Your task to perform on an android device: Add "dell xps" to the cart on newegg, then select checkout. Image 0: 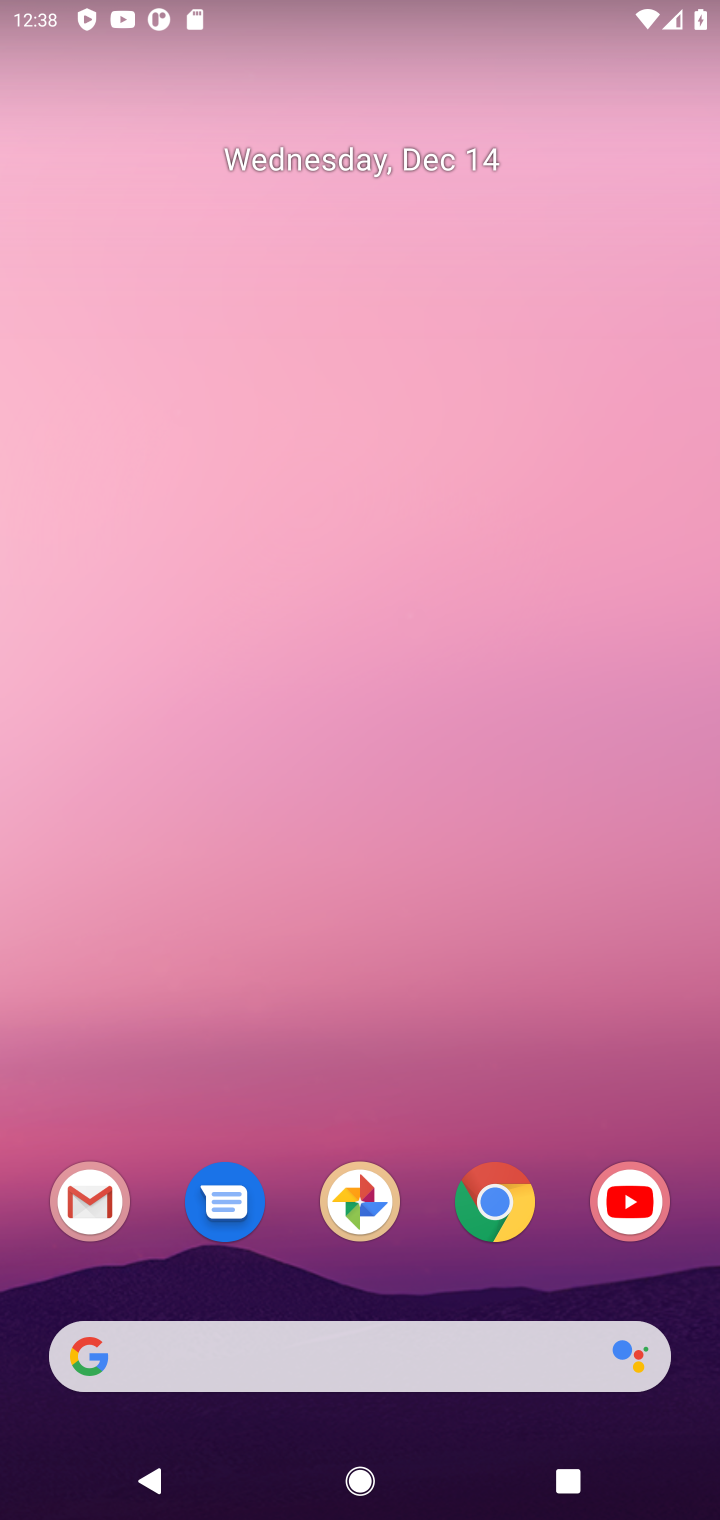
Step 0: task complete